Your task to perform on an android device: Search for "bose soundlink mini" on newegg, select the first entry, add it to the cart, then select checkout. Image 0: 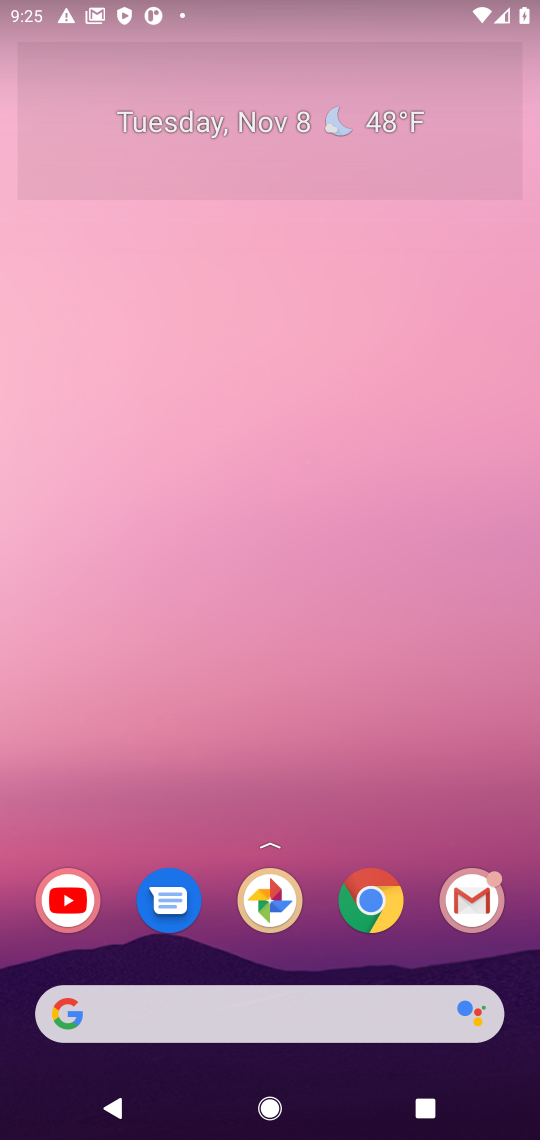
Step 0: click (379, 911)
Your task to perform on an android device: Search for "bose soundlink mini" on newegg, select the first entry, add it to the cart, then select checkout. Image 1: 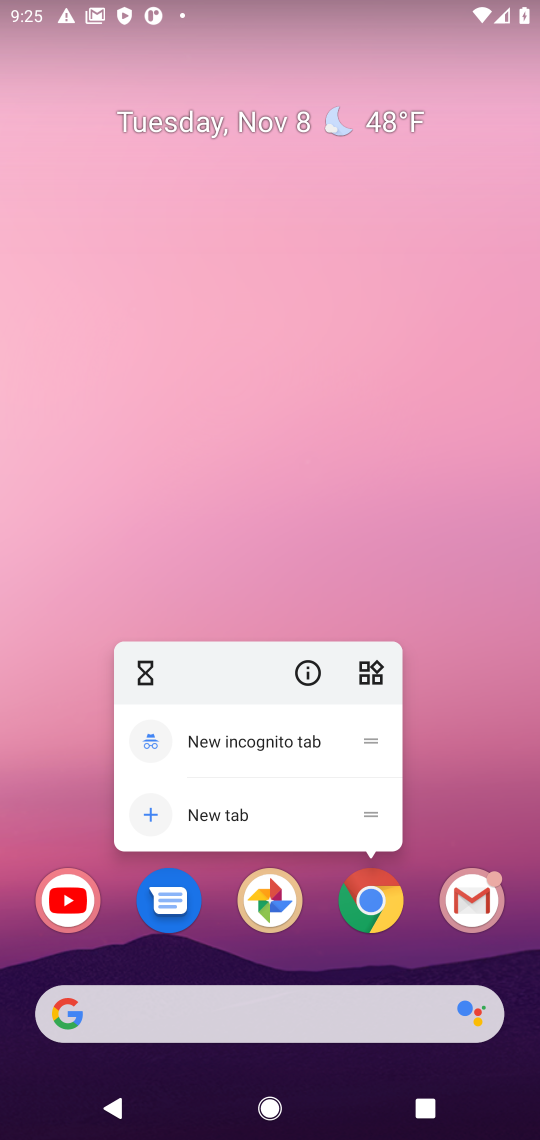
Step 1: click (383, 903)
Your task to perform on an android device: Search for "bose soundlink mini" on newegg, select the first entry, add it to the cart, then select checkout. Image 2: 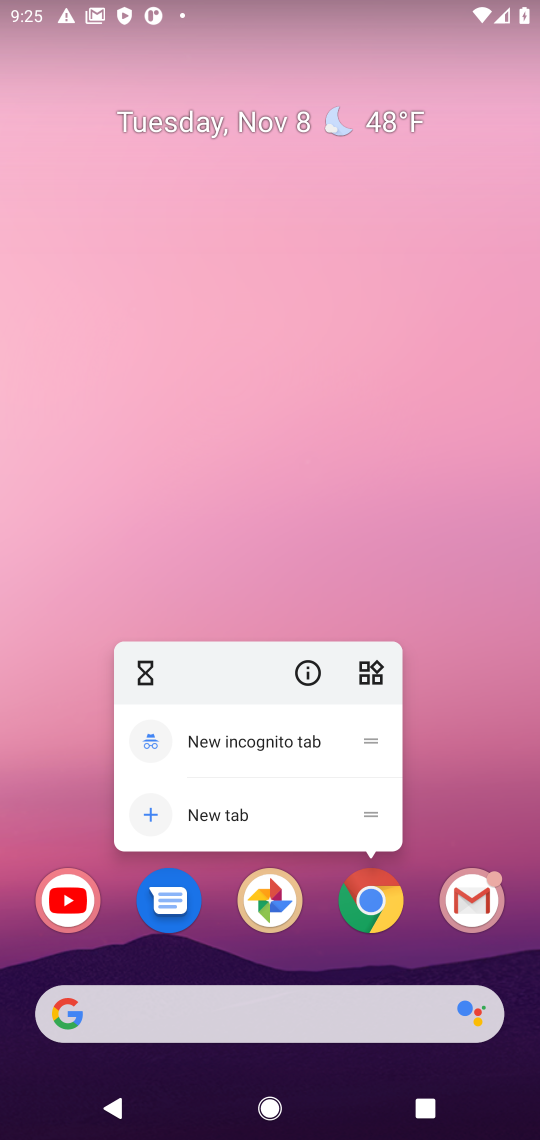
Step 2: click (385, 901)
Your task to perform on an android device: Search for "bose soundlink mini" on newegg, select the first entry, add it to the cart, then select checkout. Image 3: 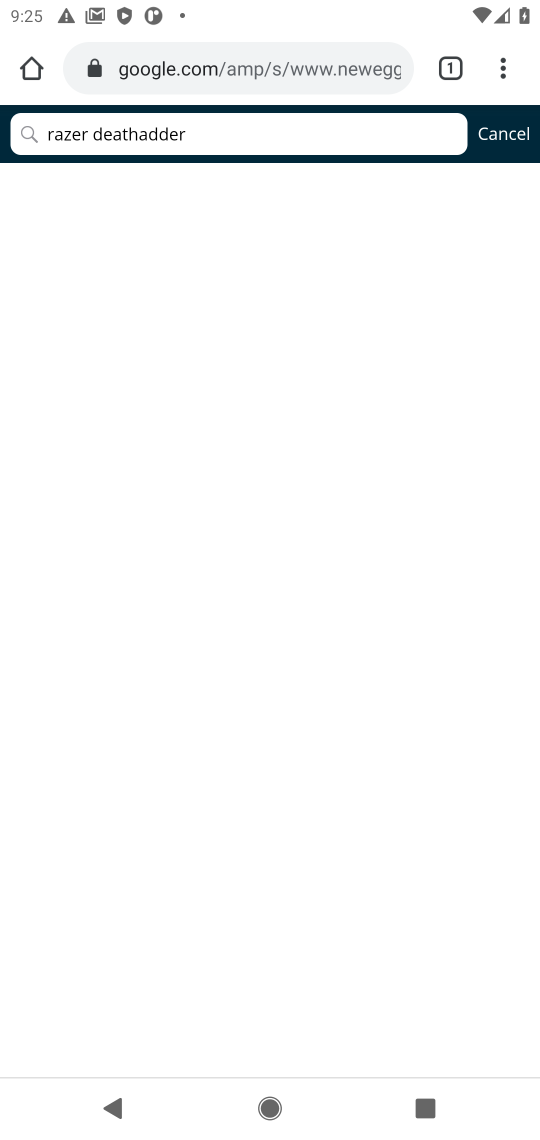
Step 3: click (246, 62)
Your task to perform on an android device: Search for "bose soundlink mini" on newegg, select the first entry, add it to the cart, then select checkout. Image 4: 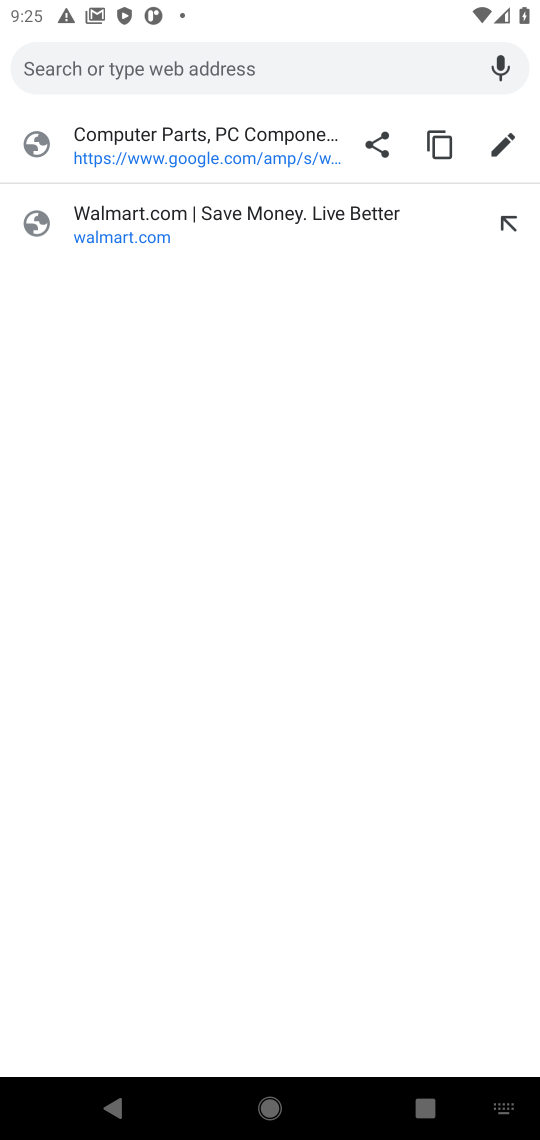
Step 4: type "newegg"
Your task to perform on an android device: Search for "bose soundlink mini" on newegg, select the first entry, add it to the cart, then select checkout. Image 5: 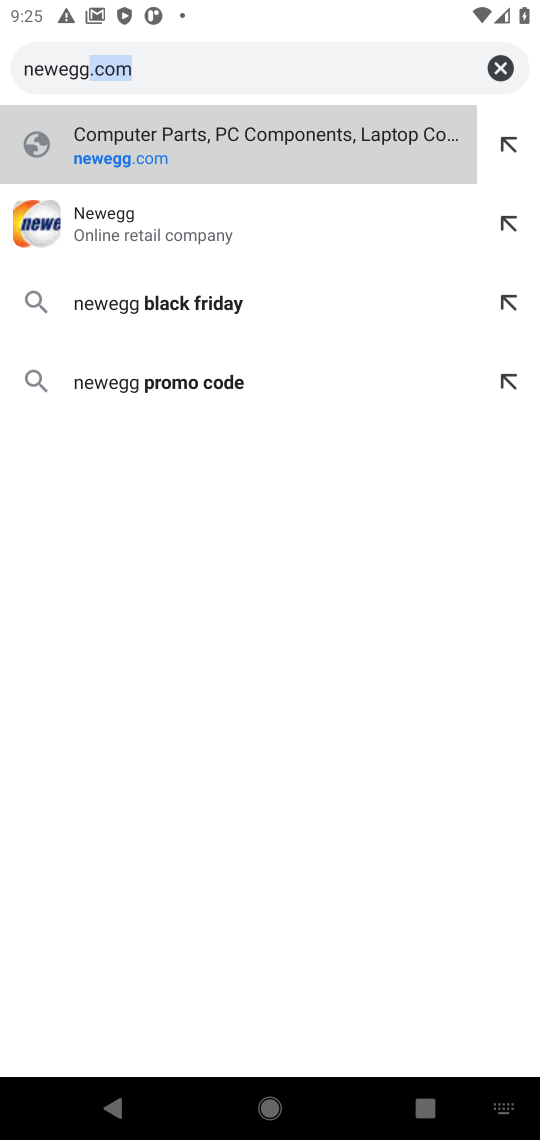
Step 5: type ""
Your task to perform on an android device: Search for "bose soundlink mini" on newegg, select the first entry, add it to the cart, then select checkout. Image 6: 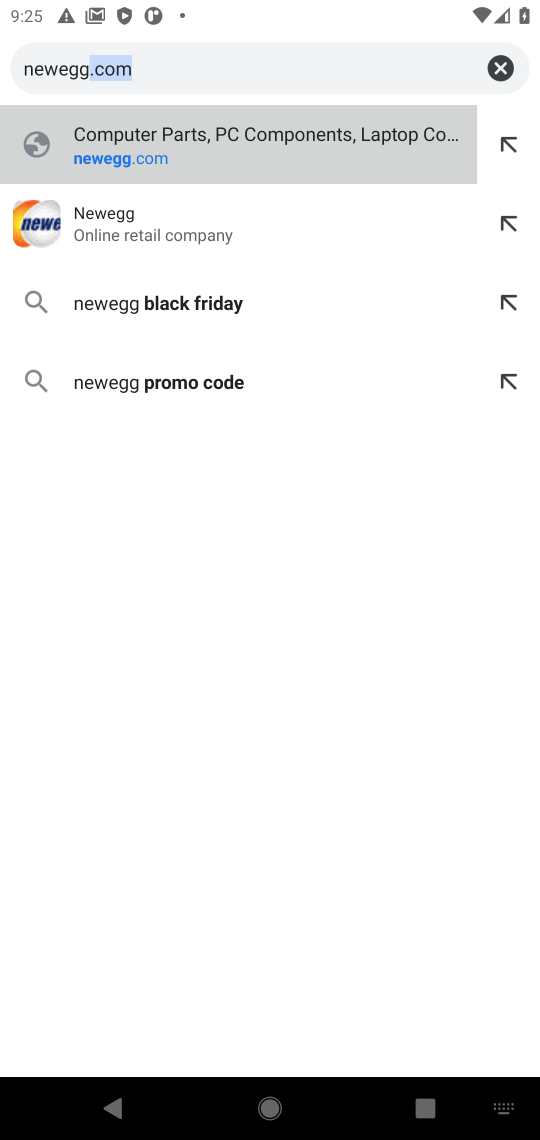
Step 6: click (177, 227)
Your task to perform on an android device: Search for "bose soundlink mini" on newegg, select the first entry, add it to the cart, then select checkout. Image 7: 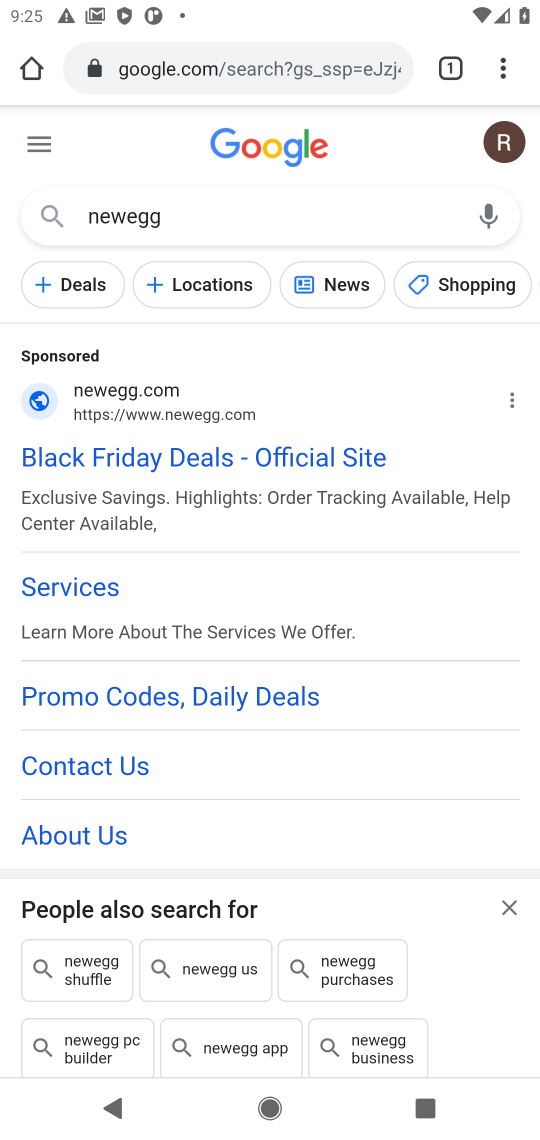
Step 7: drag from (205, 852) to (244, 192)
Your task to perform on an android device: Search for "bose soundlink mini" on newegg, select the first entry, add it to the cart, then select checkout. Image 8: 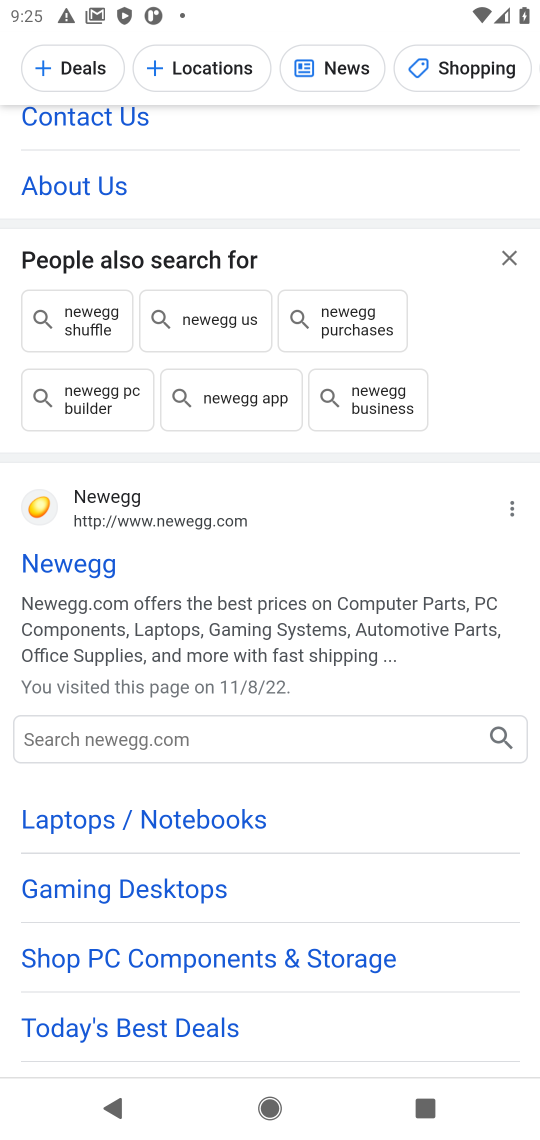
Step 8: click (64, 573)
Your task to perform on an android device: Search for "bose soundlink mini" on newegg, select the first entry, add it to the cart, then select checkout. Image 9: 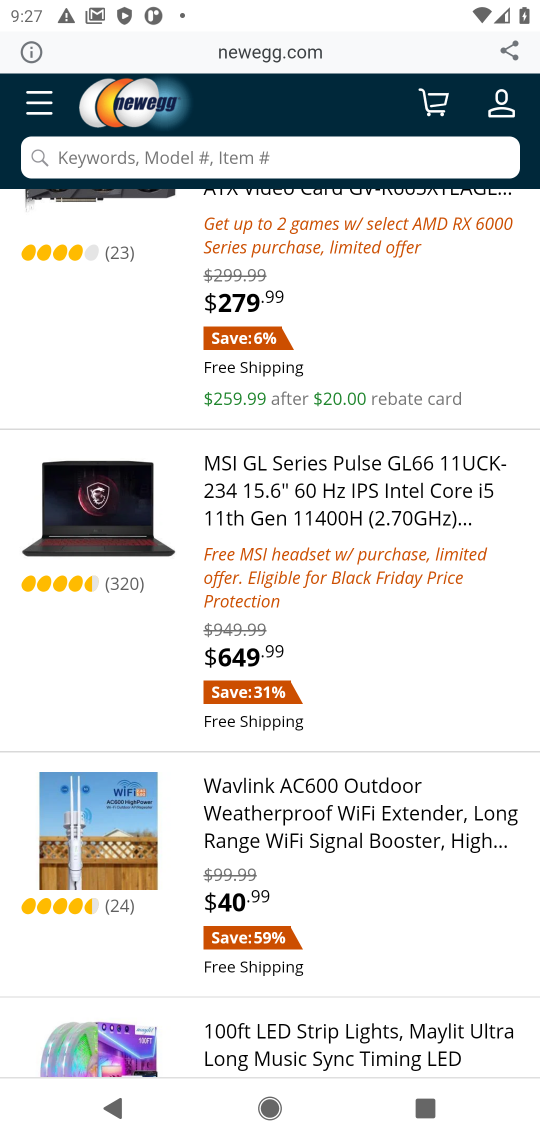
Step 9: click (172, 167)
Your task to perform on an android device: Search for "bose soundlink mini" on newegg, select the first entry, add it to the cart, then select checkout. Image 10: 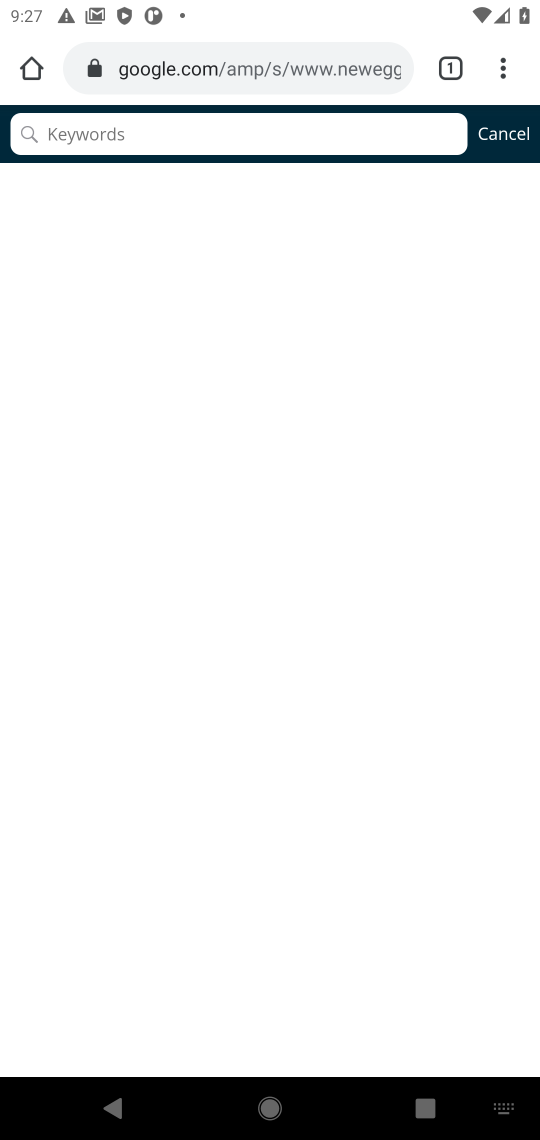
Step 10: type "bose soundlink mini"
Your task to perform on an android device: Search for "bose soundlink mini" on newegg, select the first entry, add it to the cart, then select checkout. Image 11: 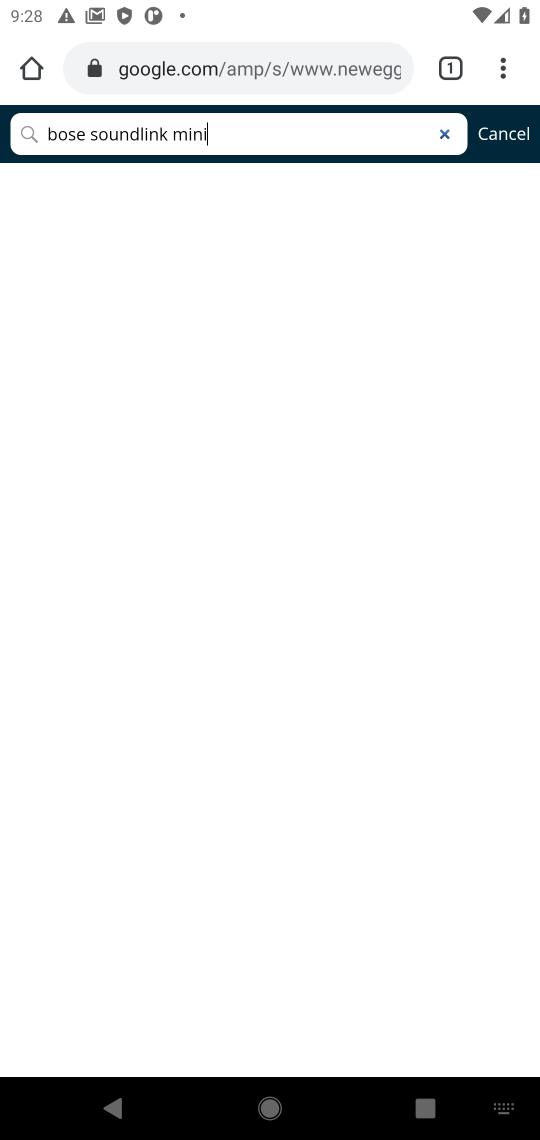
Step 11: type ""
Your task to perform on an android device: Search for "bose soundlink mini" on newegg, select the first entry, add it to the cart, then select checkout. Image 12: 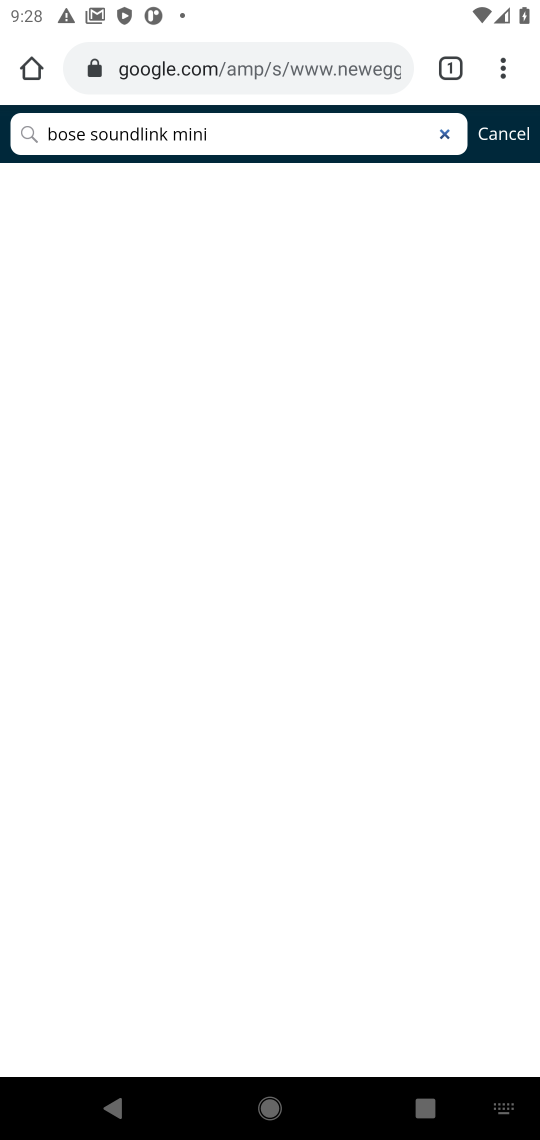
Step 12: type ""
Your task to perform on an android device: Search for "bose soundlink mini" on newegg, select the first entry, add it to the cart, then select checkout. Image 13: 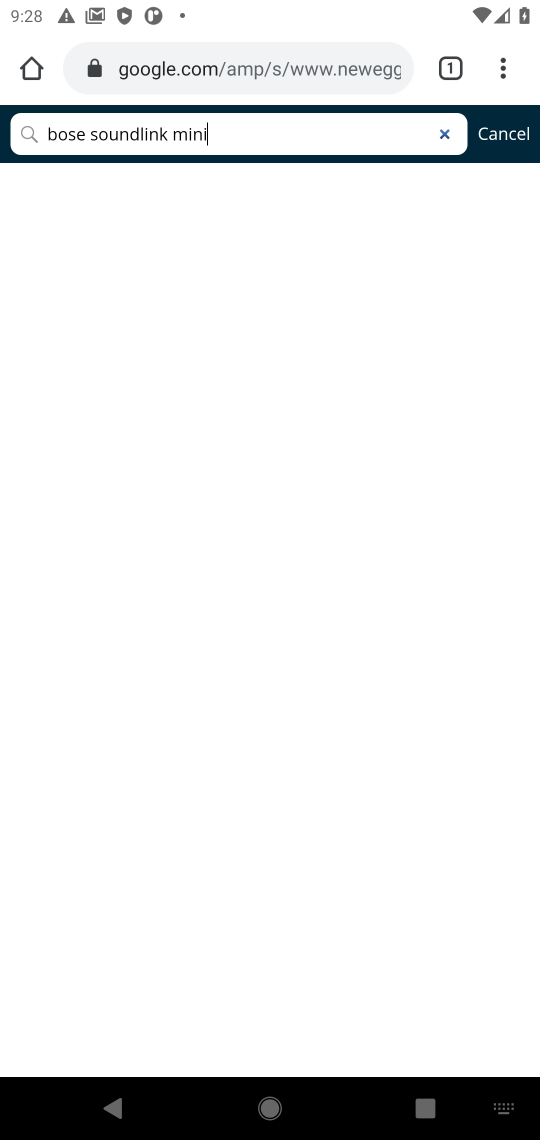
Step 13: task complete